Your task to perform on an android device: Open network settings Image 0: 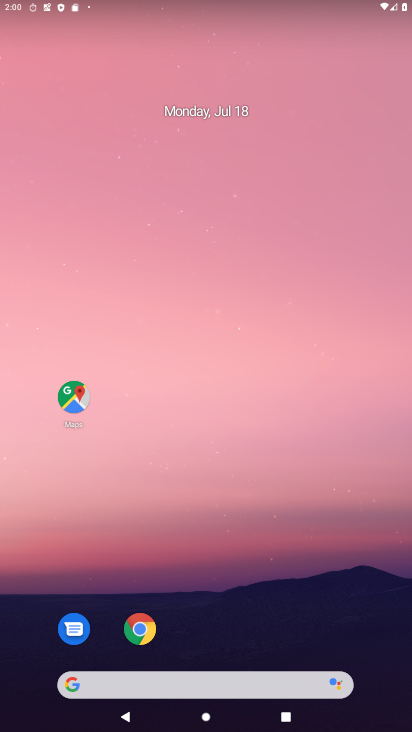
Step 0: press home button
Your task to perform on an android device: Open network settings Image 1: 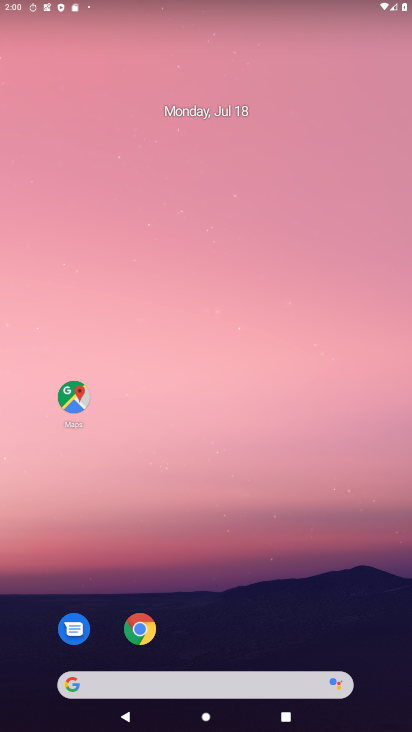
Step 1: click (70, 393)
Your task to perform on an android device: Open network settings Image 2: 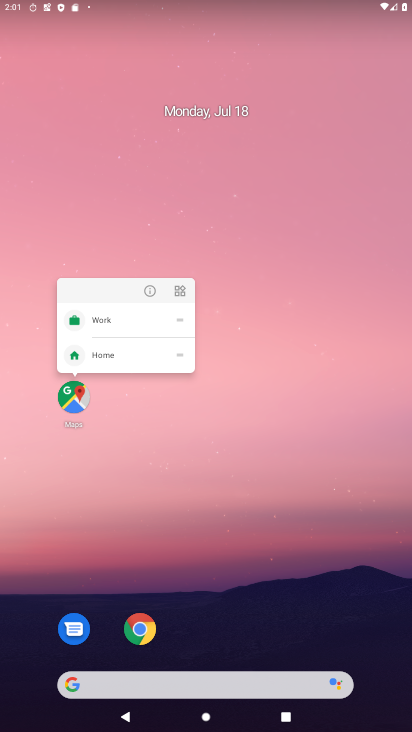
Step 2: click (219, 622)
Your task to perform on an android device: Open network settings Image 3: 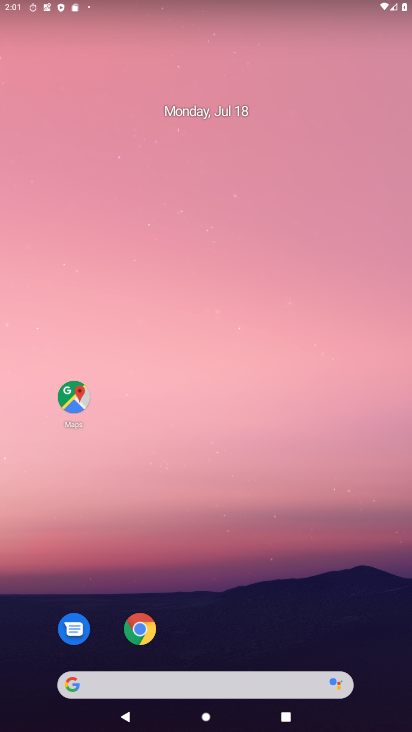
Step 3: drag from (237, 654) to (268, 31)
Your task to perform on an android device: Open network settings Image 4: 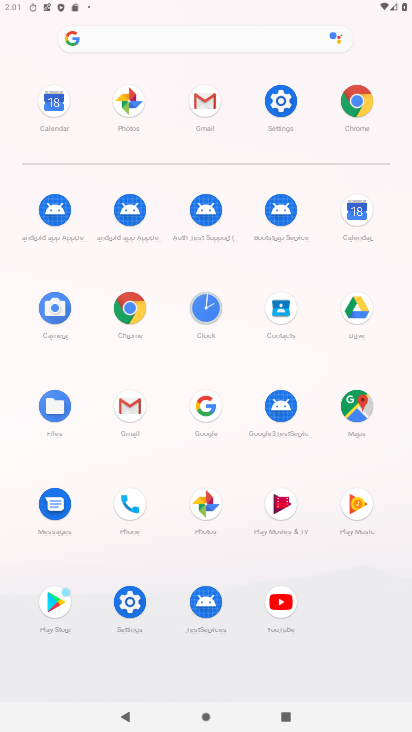
Step 4: click (279, 98)
Your task to perform on an android device: Open network settings Image 5: 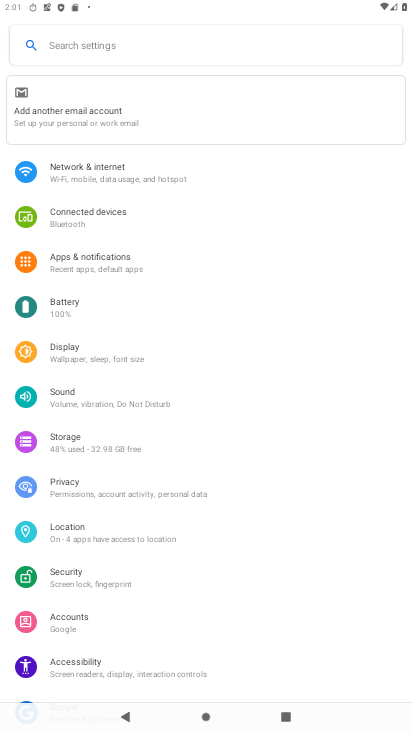
Step 5: click (143, 166)
Your task to perform on an android device: Open network settings Image 6: 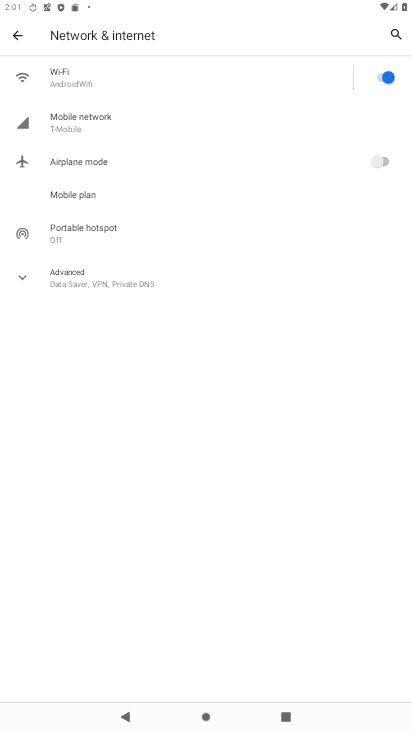
Step 6: click (30, 277)
Your task to perform on an android device: Open network settings Image 7: 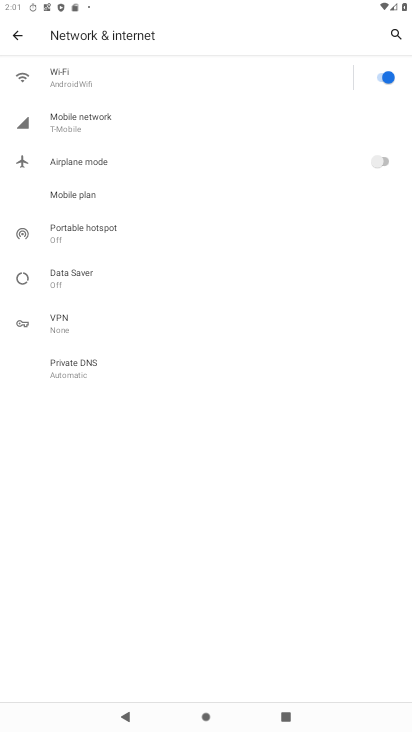
Step 7: task complete